Your task to perform on an android device: turn on notifications settings in the gmail app Image 0: 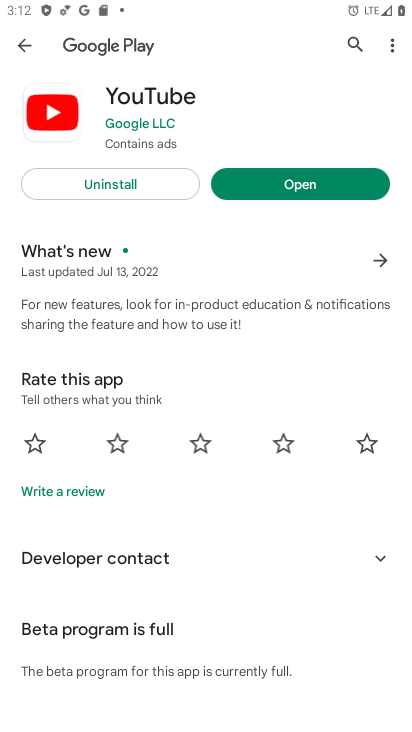
Step 0: press home button
Your task to perform on an android device: turn on notifications settings in the gmail app Image 1: 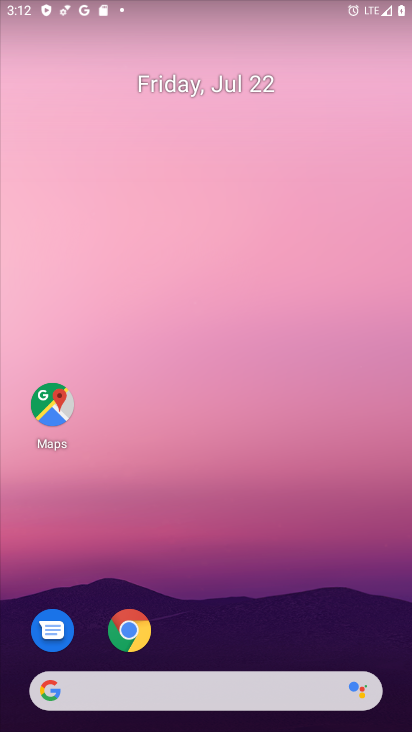
Step 1: drag from (178, 699) to (141, 250)
Your task to perform on an android device: turn on notifications settings in the gmail app Image 2: 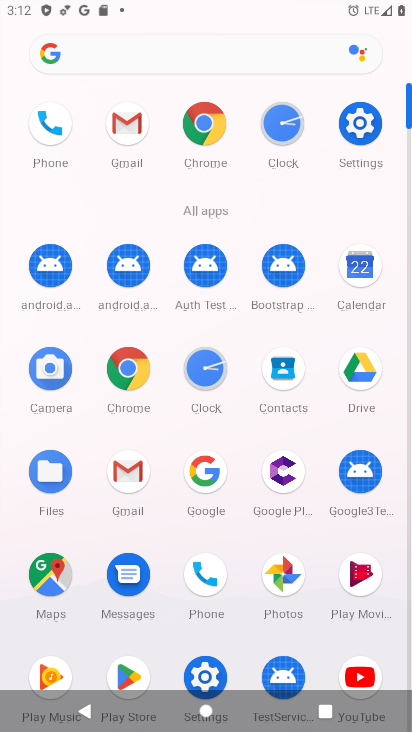
Step 2: click (124, 157)
Your task to perform on an android device: turn on notifications settings in the gmail app Image 3: 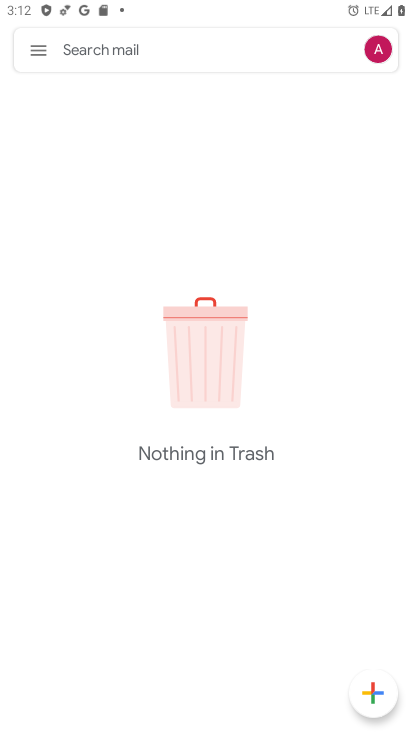
Step 3: click (35, 61)
Your task to perform on an android device: turn on notifications settings in the gmail app Image 4: 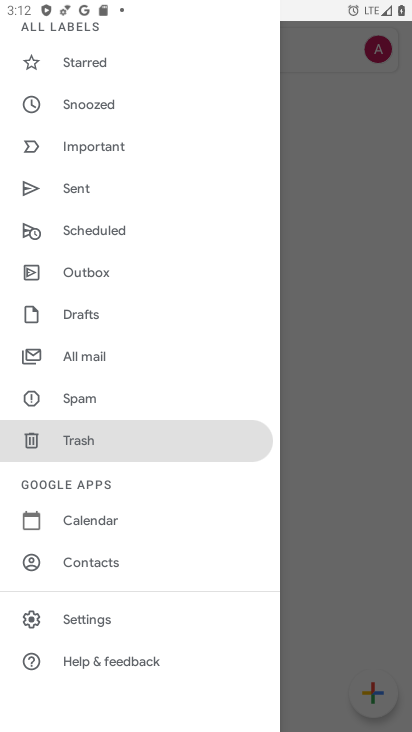
Step 4: click (100, 630)
Your task to perform on an android device: turn on notifications settings in the gmail app Image 5: 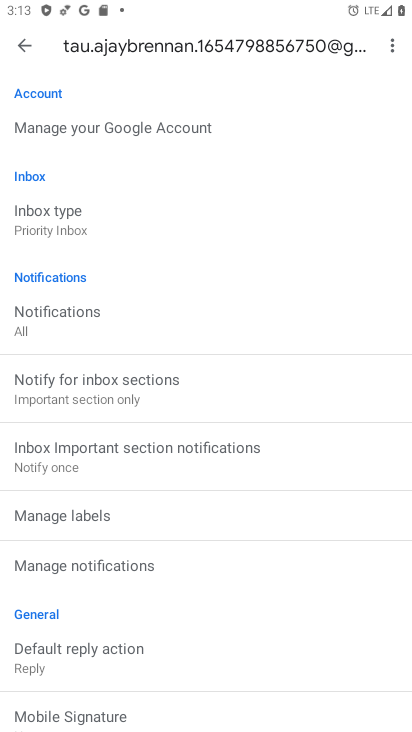
Step 5: click (100, 554)
Your task to perform on an android device: turn on notifications settings in the gmail app Image 6: 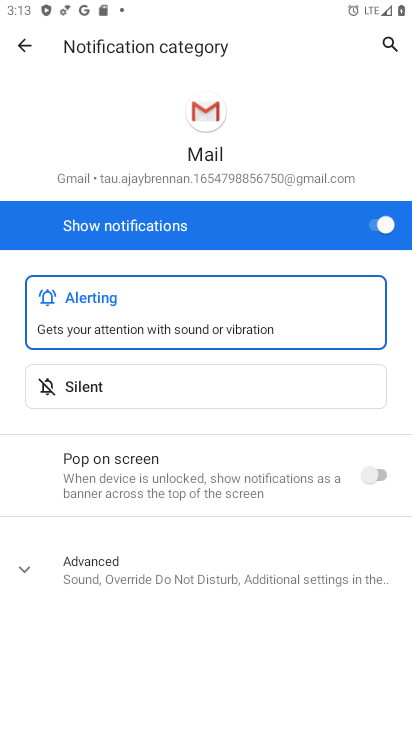
Step 6: task complete